Your task to perform on an android device: open device folders in google photos Image 0: 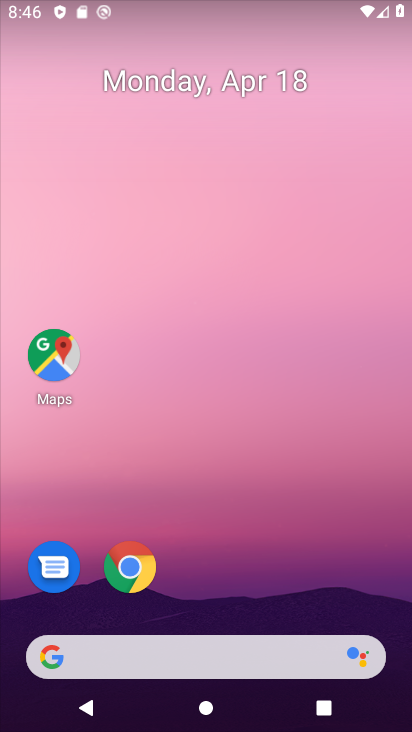
Step 0: drag from (207, 517) to (229, 5)
Your task to perform on an android device: open device folders in google photos Image 1: 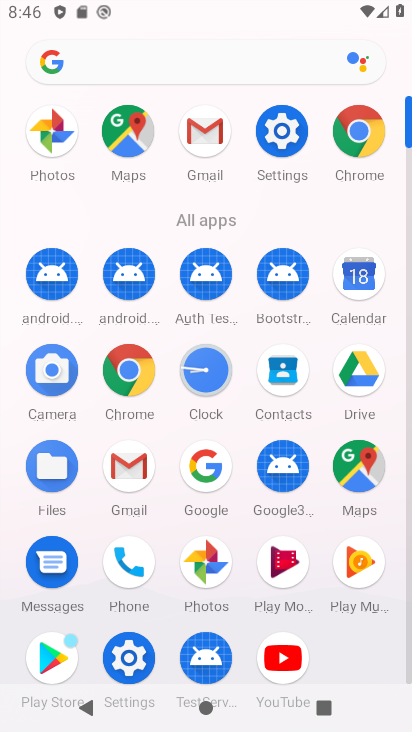
Step 1: click (51, 119)
Your task to perform on an android device: open device folders in google photos Image 2: 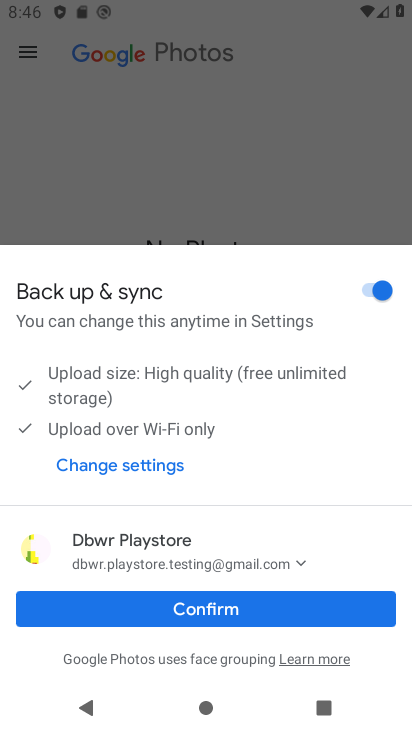
Step 2: click (189, 612)
Your task to perform on an android device: open device folders in google photos Image 3: 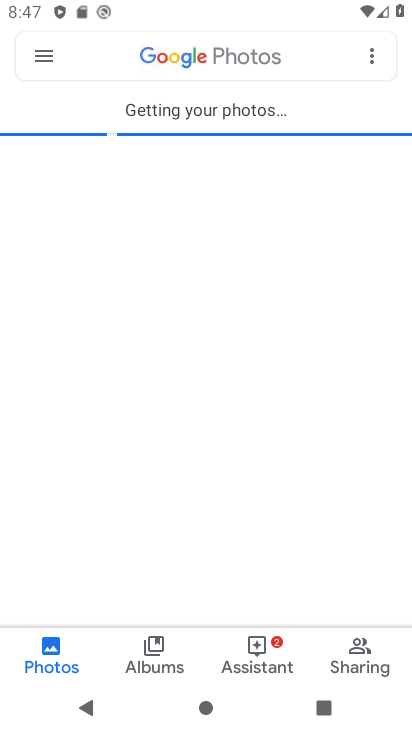
Step 3: click (39, 55)
Your task to perform on an android device: open device folders in google photos Image 4: 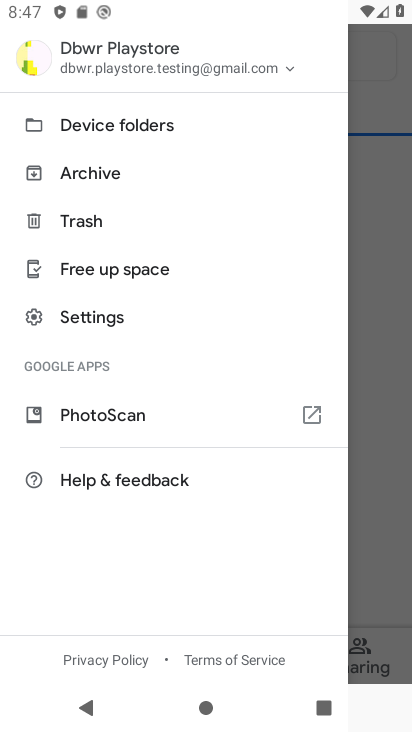
Step 4: click (102, 126)
Your task to perform on an android device: open device folders in google photos Image 5: 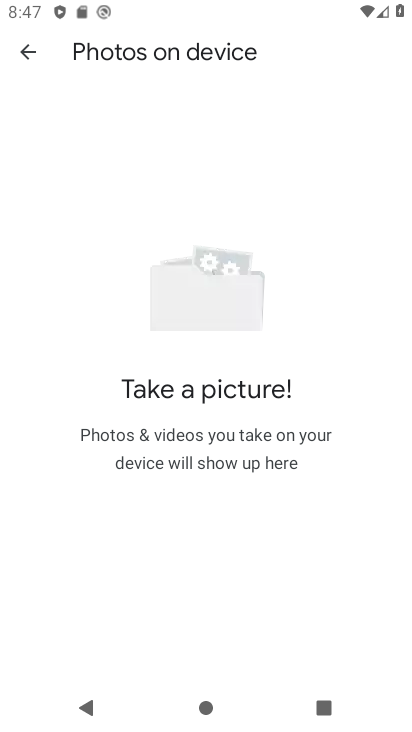
Step 5: task complete